Your task to perform on an android device: Open Reddit.com Image 0: 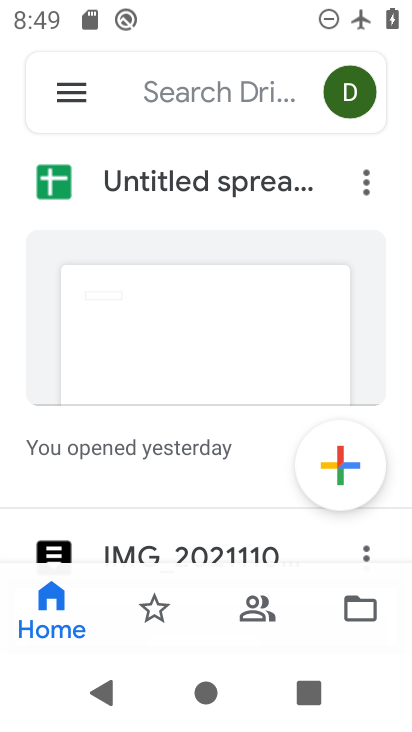
Step 0: press home button
Your task to perform on an android device: Open Reddit.com Image 1: 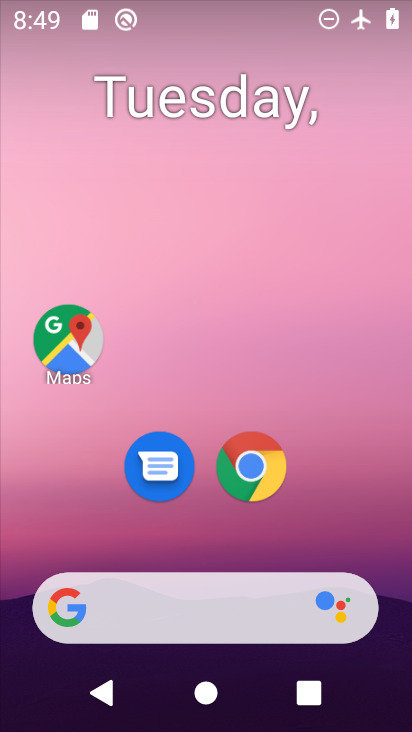
Step 1: drag from (222, 544) to (212, 7)
Your task to perform on an android device: Open Reddit.com Image 2: 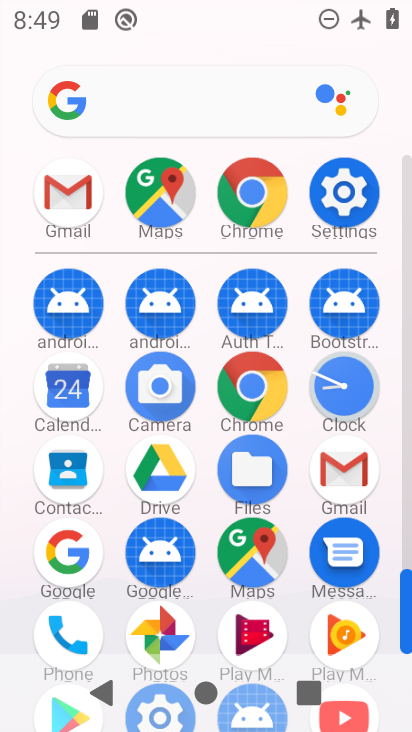
Step 2: click (268, 200)
Your task to perform on an android device: Open Reddit.com Image 3: 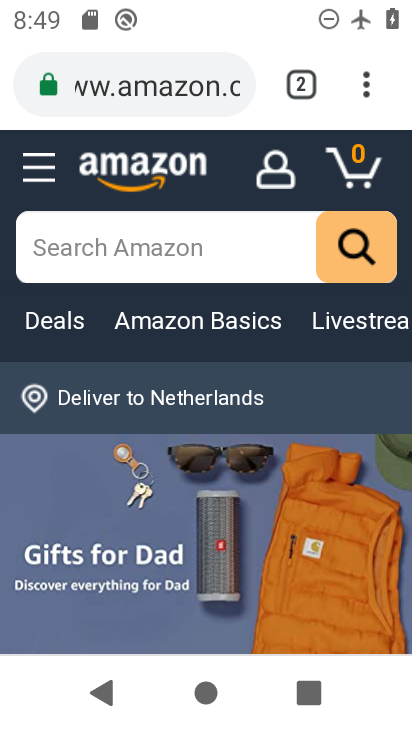
Step 3: click (199, 90)
Your task to perform on an android device: Open Reddit.com Image 4: 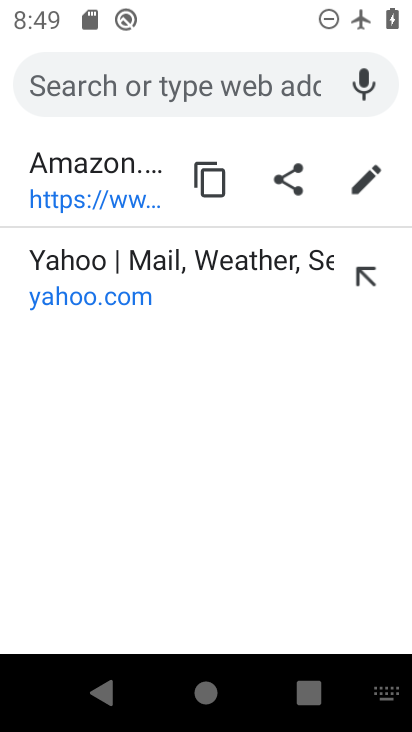
Step 4: type "reddit.com"
Your task to perform on an android device: Open Reddit.com Image 5: 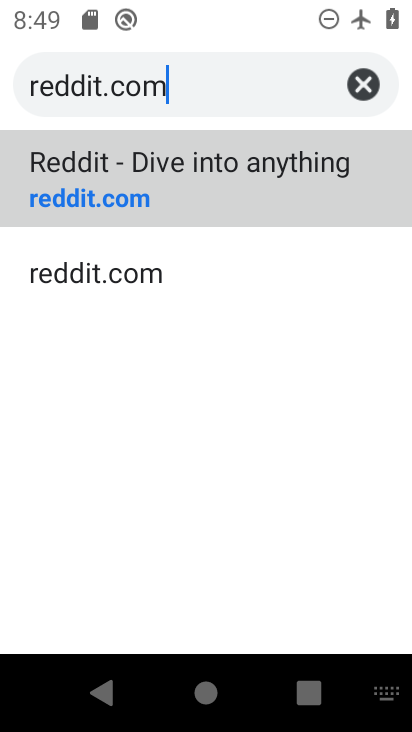
Step 5: click (186, 190)
Your task to perform on an android device: Open Reddit.com Image 6: 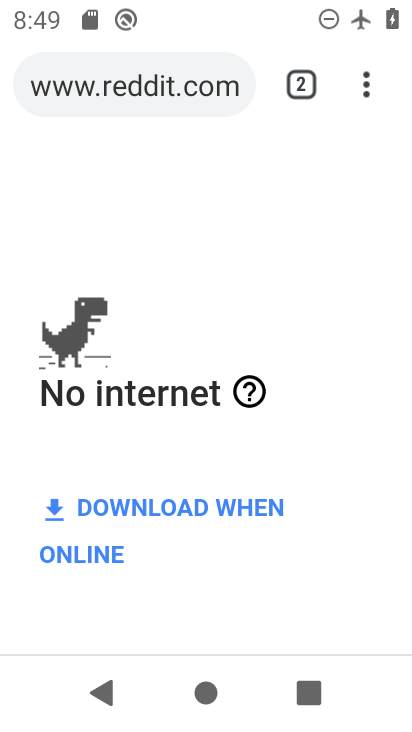
Step 6: task complete